Your task to perform on an android device: Go to calendar. Show me events next week Image 0: 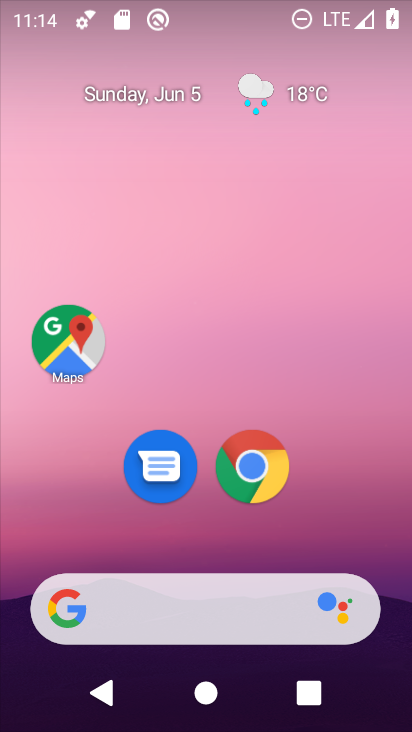
Step 0: drag from (349, 526) to (245, 29)
Your task to perform on an android device: Go to calendar. Show me events next week Image 1: 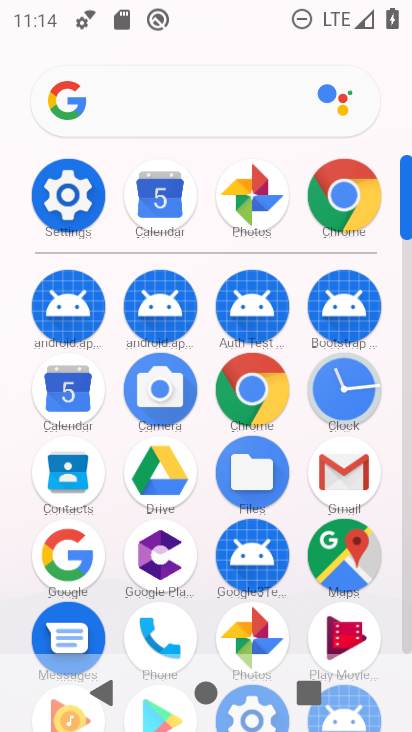
Step 1: drag from (14, 607) to (26, 291)
Your task to perform on an android device: Go to calendar. Show me events next week Image 2: 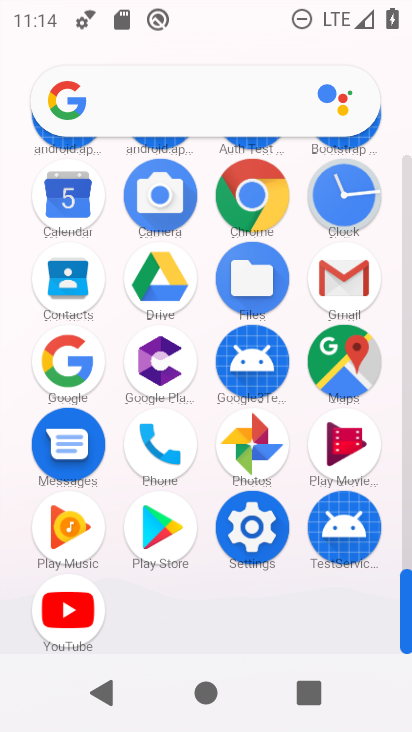
Step 2: click (61, 189)
Your task to perform on an android device: Go to calendar. Show me events next week Image 3: 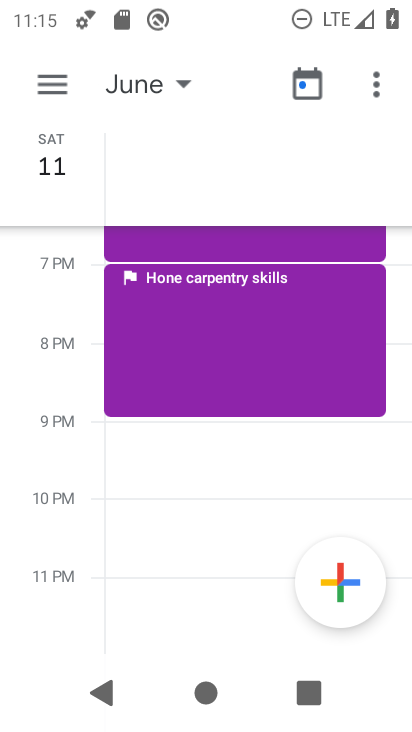
Step 3: click (109, 88)
Your task to perform on an android device: Go to calendar. Show me events next week Image 4: 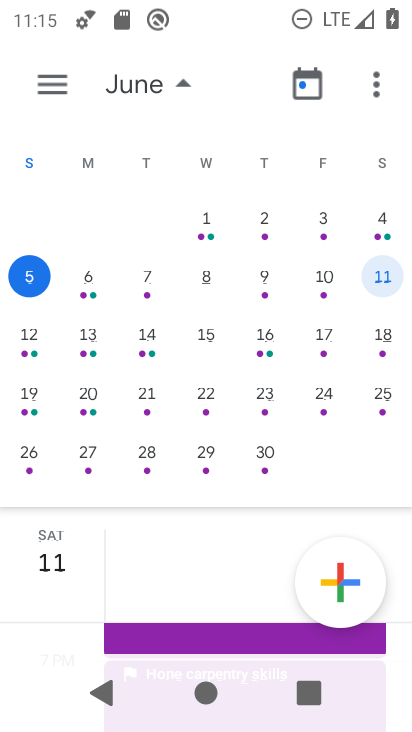
Step 4: click (306, 79)
Your task to perform on an android device: Go to calendar. Show me events next week Image 5: 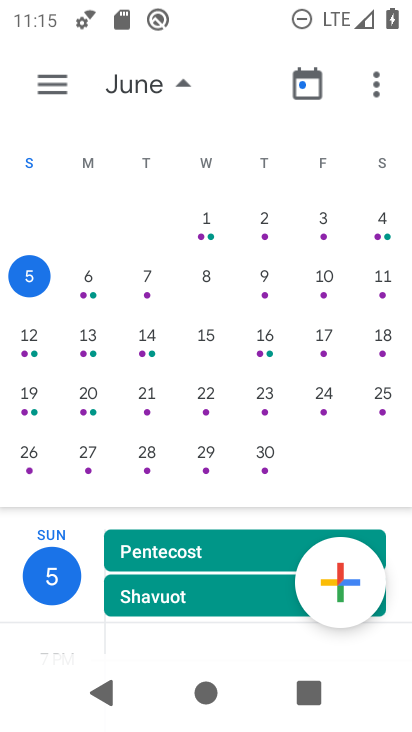
Step 5: click (28, 335)
Your task to perform on an android device: Go to calendar. Show me events next week Image 6: 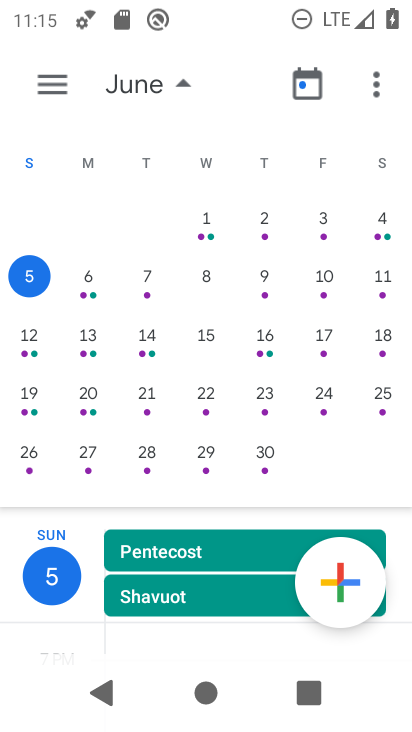
Step 6: click (28, 335)
Your task to perform on an android device: Go to calendar. Show me events next week Image 7: 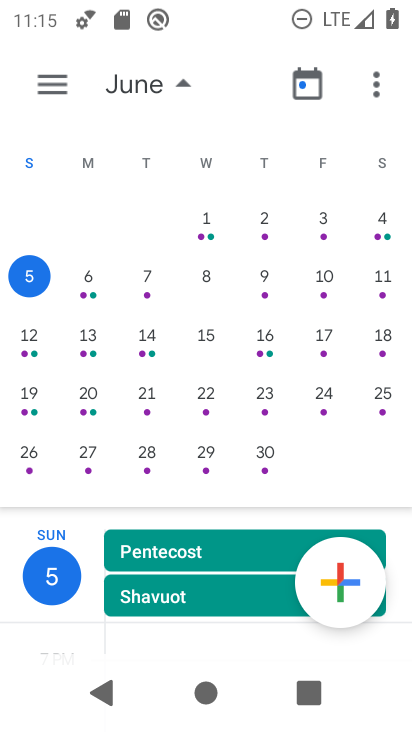
Step 7: click (34, 335)
Your task to perform on an android device: Go to calendar. Show me events next week Image 8: 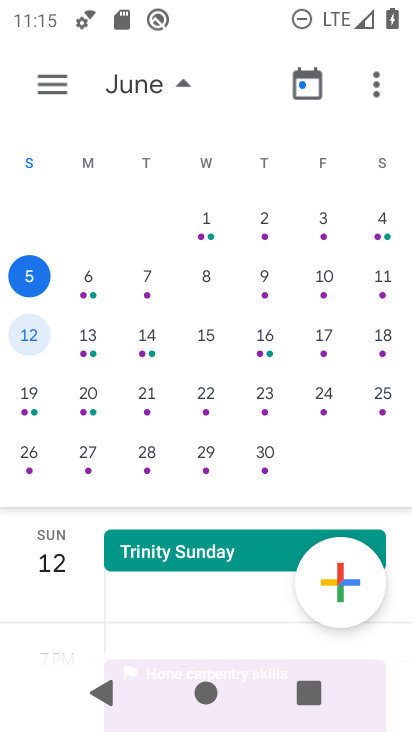
Step 8: click (69, 84)
Your task to perform on an android device: Go to calendar. Show me events next week Image 9: 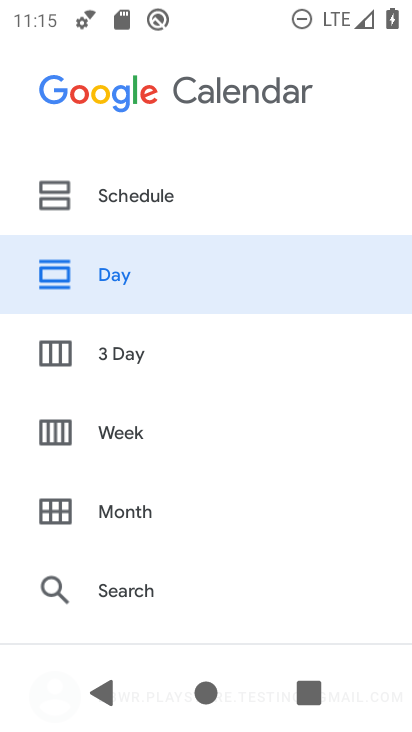
Step 9: click (127, 443)
Your task to perform on an android device: Go to calendar. Show me events next week Image 10: 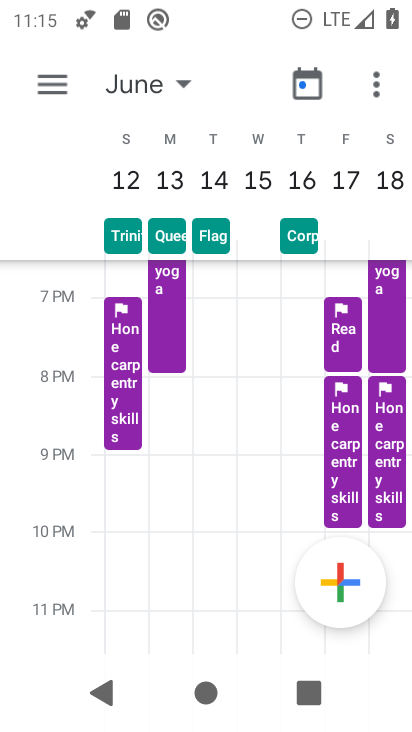
Step 10: task complete